Your task to perform on an android device: Go to Amazon Image 0: 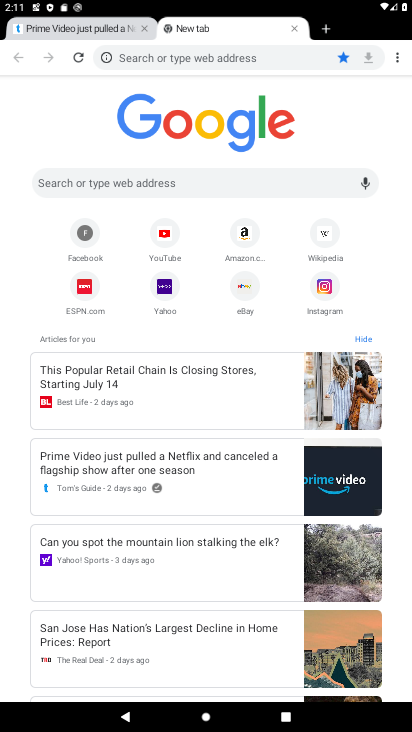
Step 0: click (231, 242)
Your task to perform on an android device: Go to Amazon Image 1: 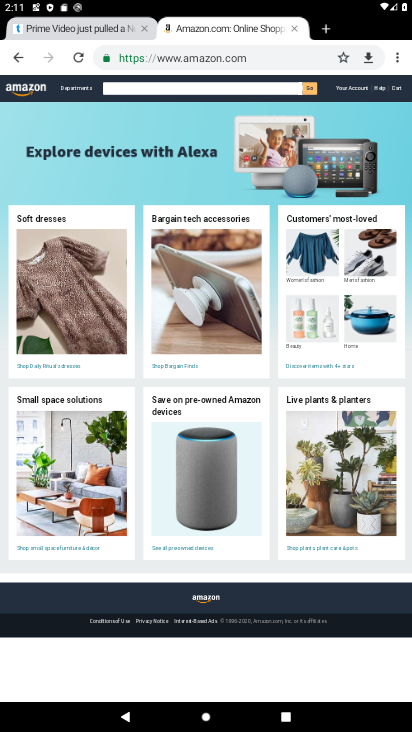
Step 1: task complete